Your task to perform on an android device: delete browsing data in the chrome app Image 0: 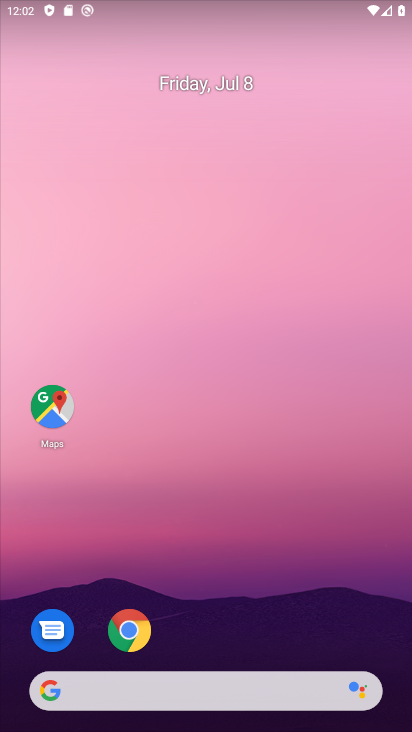
Step 0: drag from (390, 685) to (236, 62)
Your task to perform on an android device: delete browsing data in the chrome app Image 1: 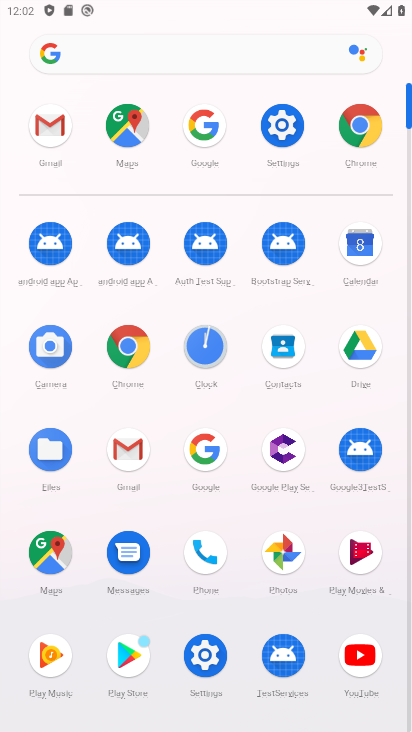
Step 1: click (133, 353)
Your task to perform on an android device: delete browsing data in the chrome app Image 2: 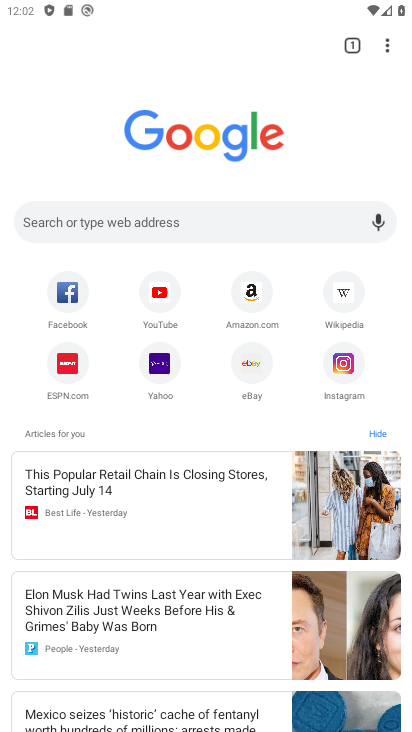
Step 2: click (385, 44)
Your task to perform on an android device: delete browsing data in the chrome app Image 3: 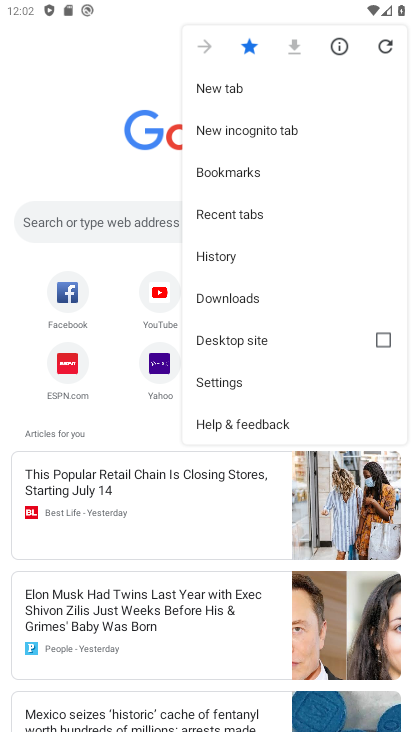
Step 3: click (213, 265)
Your task to perform on an android device: delete browsing data in the chrome app Image 4: 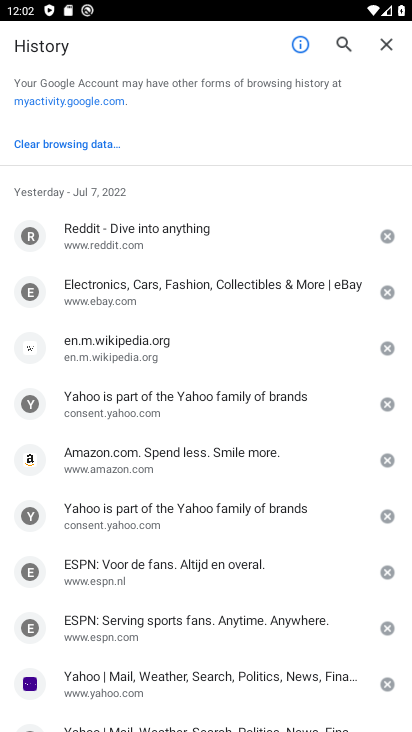
Step 4: click (51, 133)
Your task to perform on an android device: delete browsing data in the chrome app Image 5: 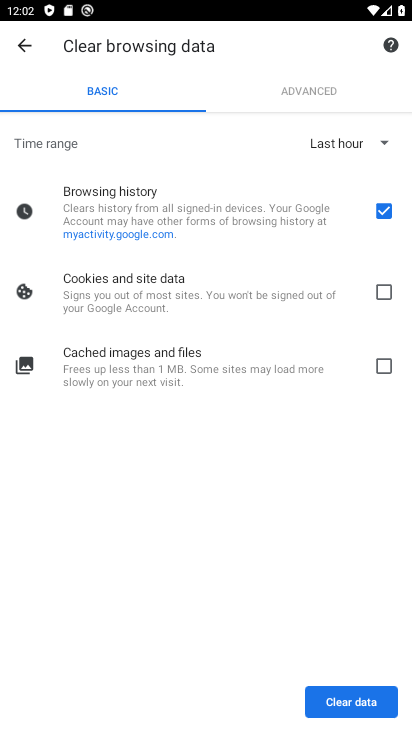
Step 5: click (385, 285)
Your task to perform on an android device: delete browsing data in the chrome app Image 6: 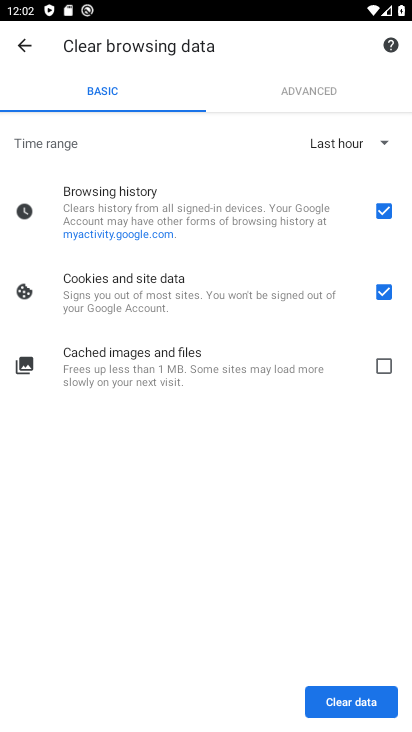
Step 6: click (302, 381)
Your task to perform on an android device: delete browsing data in the chrome app Image 7: 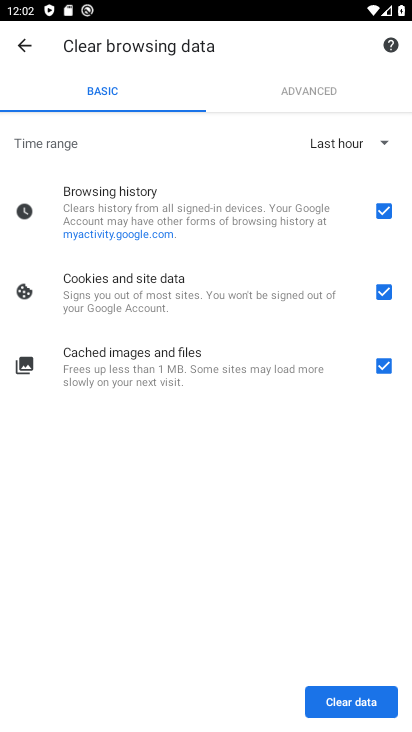
Step 7: click (336, 707)
Your task to perform on an android device: delete browsing data in the chrome app Image 8: 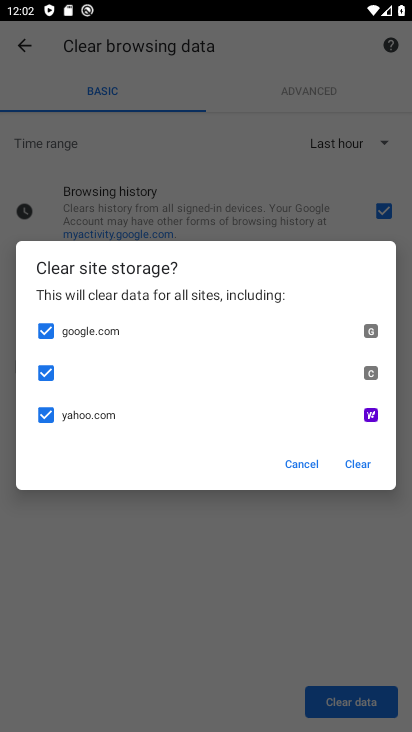
Step 8: click (351, 460)
Your task to perform on an android device: delete browsing data in the chrome app Image 9: 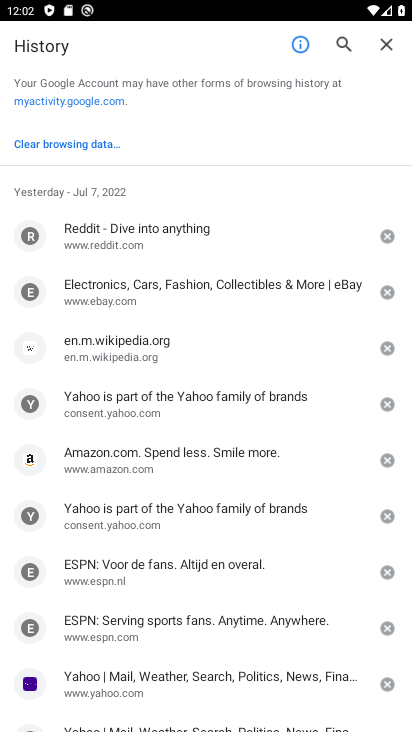
Step 9: click (88, 149)
Your task to perform on an android device: delete browsing data in the chrome app Image 10: 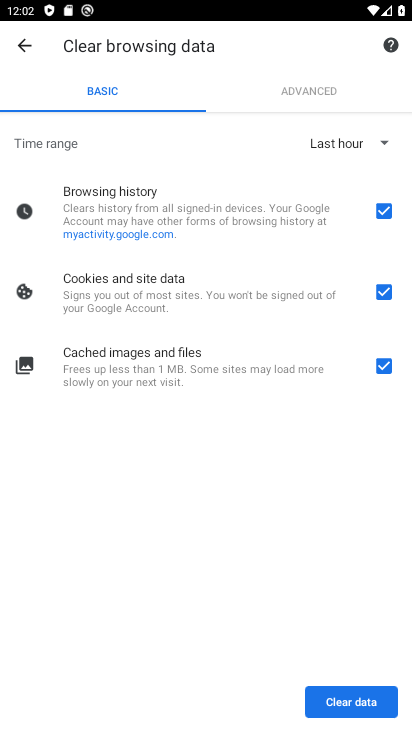
Step 10: click (380, 369)
Your task to perform on an android device: delete browsing data in the chrome app Image 11: 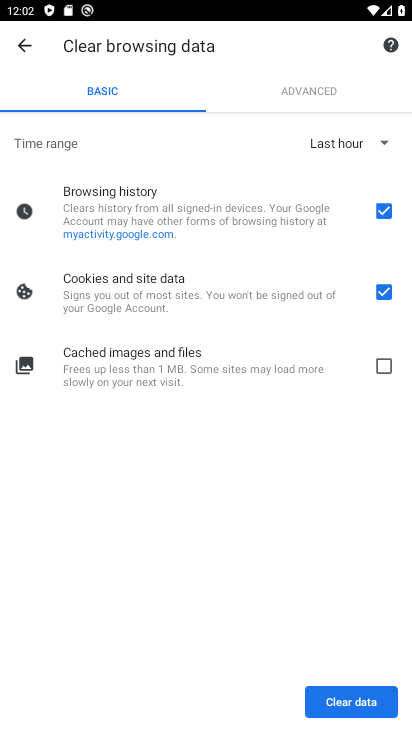
Step 11: click (314, 707)
Your task to perform on an android device: delete browsing data in the chrome app Image 12: 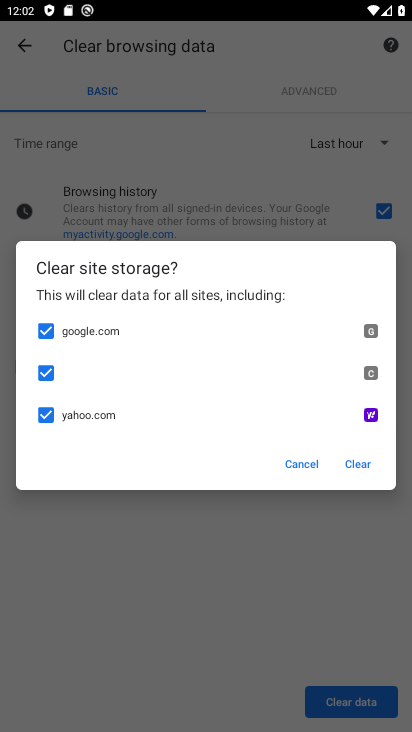
Step 12: click (361, 460)
Your task to perform on an android device: delete browsing data in the chrome app Image 13: 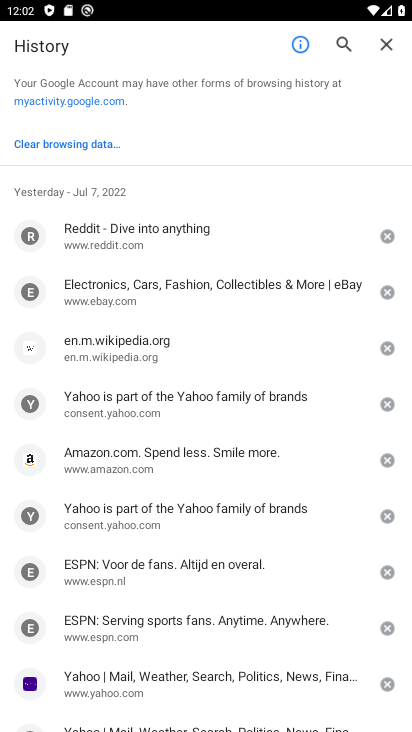
Step 13: task complete